Your task to perform on an android device: Go to ESPN.com Image 0: 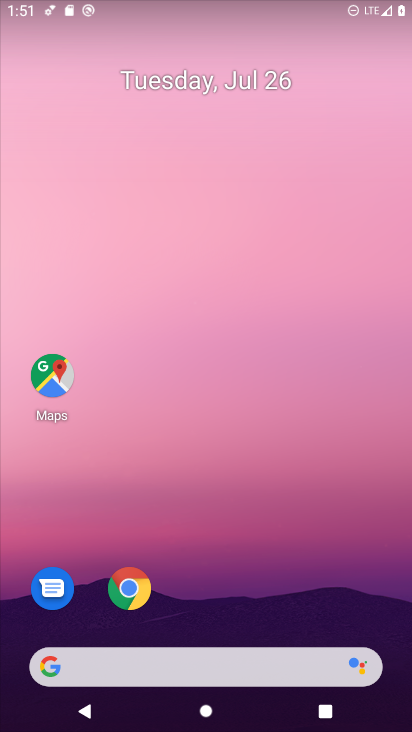
Step 0: drag from (195, 644) to (265, 11)
Your task to perform on an android device: Go to ESPN.com Image 1: 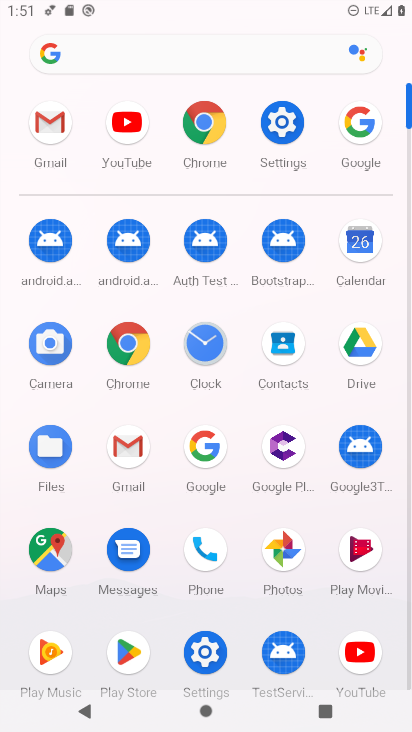
Step 1: click (120, 362)
Your task to perform on an android device: Go to ESPN.com Image 2: 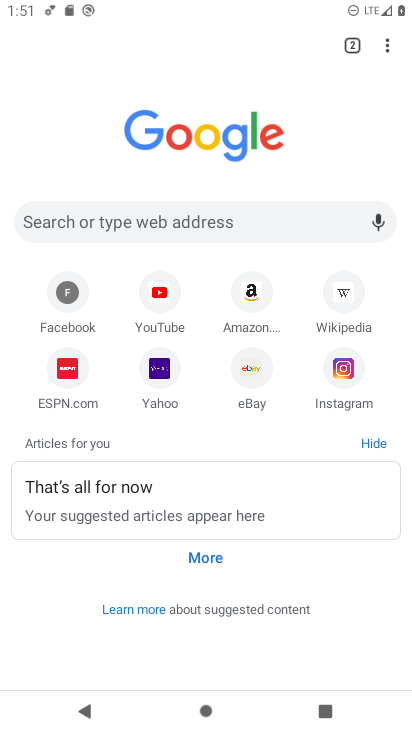
Step 2: click (53, 386)
Your task to perform on an android device: Go to ESPN.com Image 3: 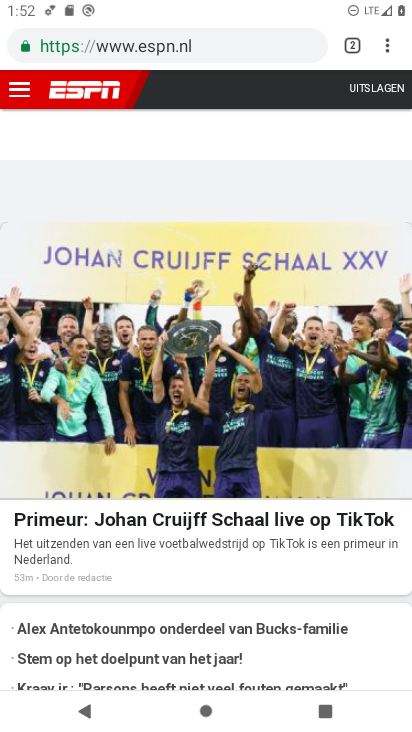
Step 3: task complete